Your task to perform on an android device: Go to eBay Image 0: 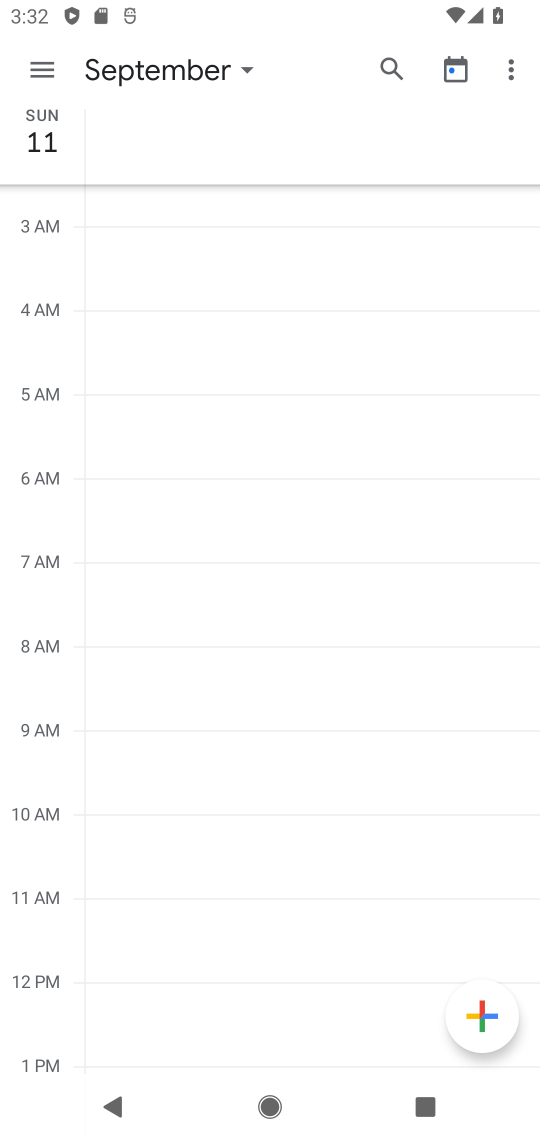
Step 0: press home button
Your task to perform on an android device: Go to eBay Image 1: 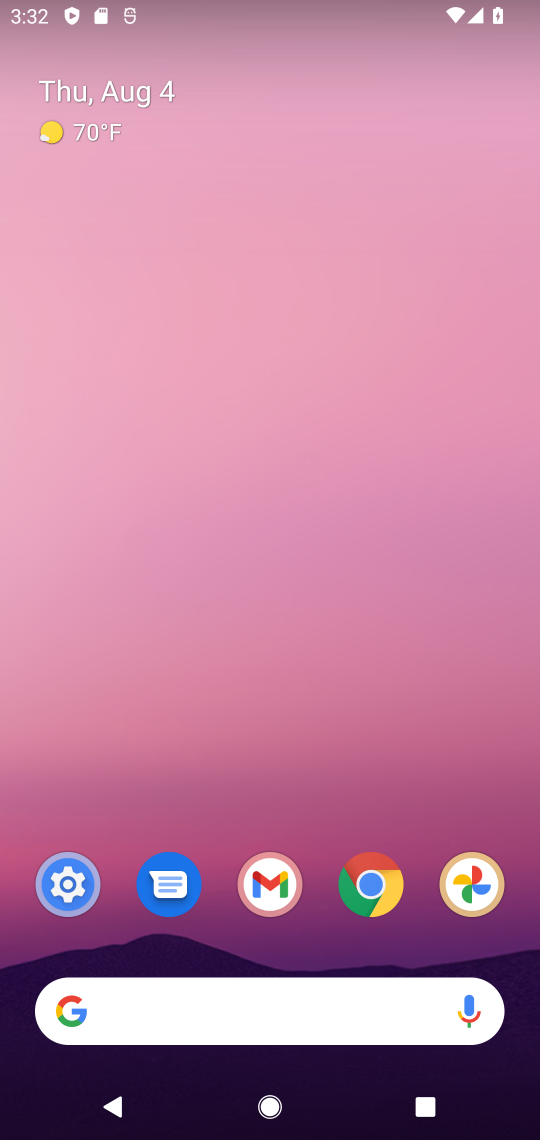
Step 1: drag from (258, 935) to (256, 54)
Your task to perform on an android device: Go to eBay Image 2: 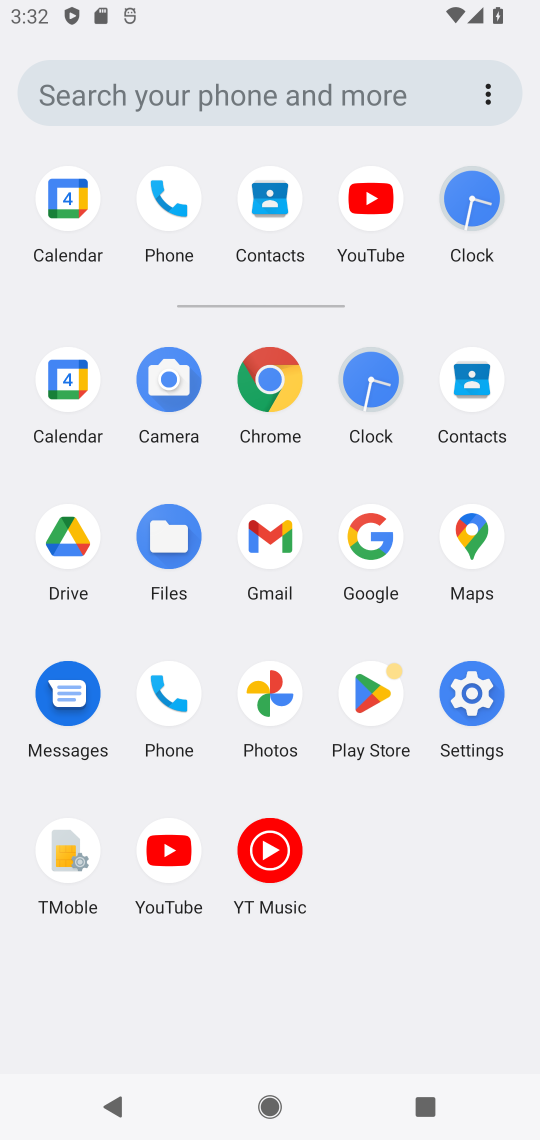
Step 2: click (253, 404)
Your task to perform on an android device: Go to eBay Image 3: 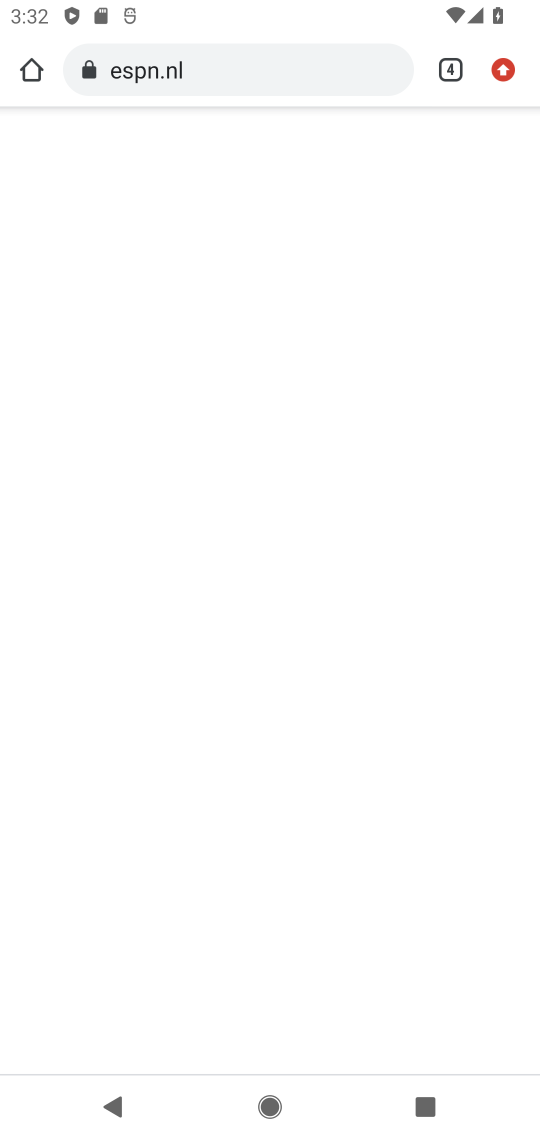
Step 3: click (506, 55)
Your task to perform on an android device: Go to eBay Image 4: 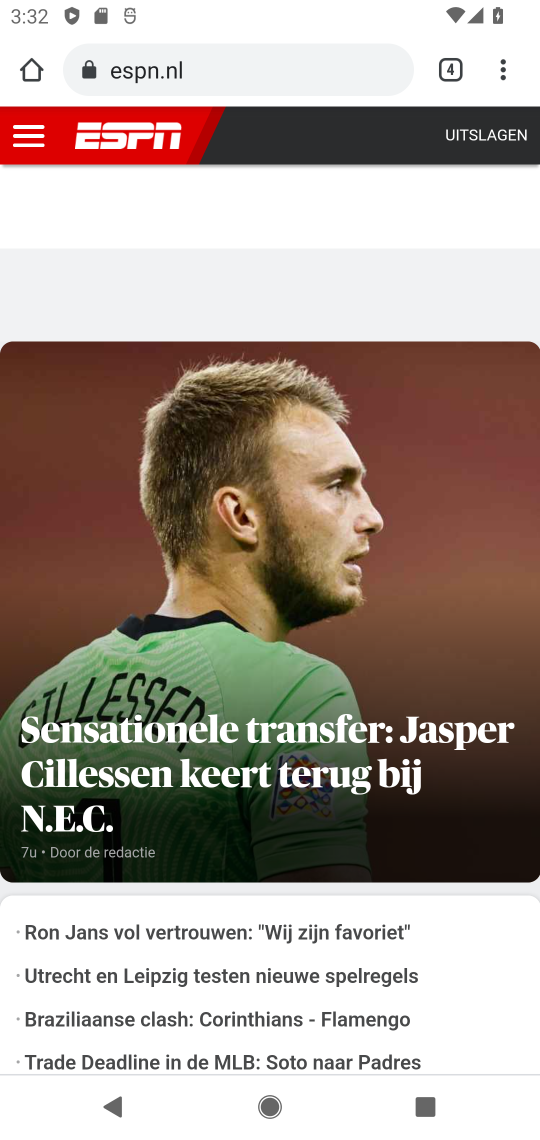
Step 4: click (492, 58)
Your task to perform on an android device: Go to eBay Image 5: 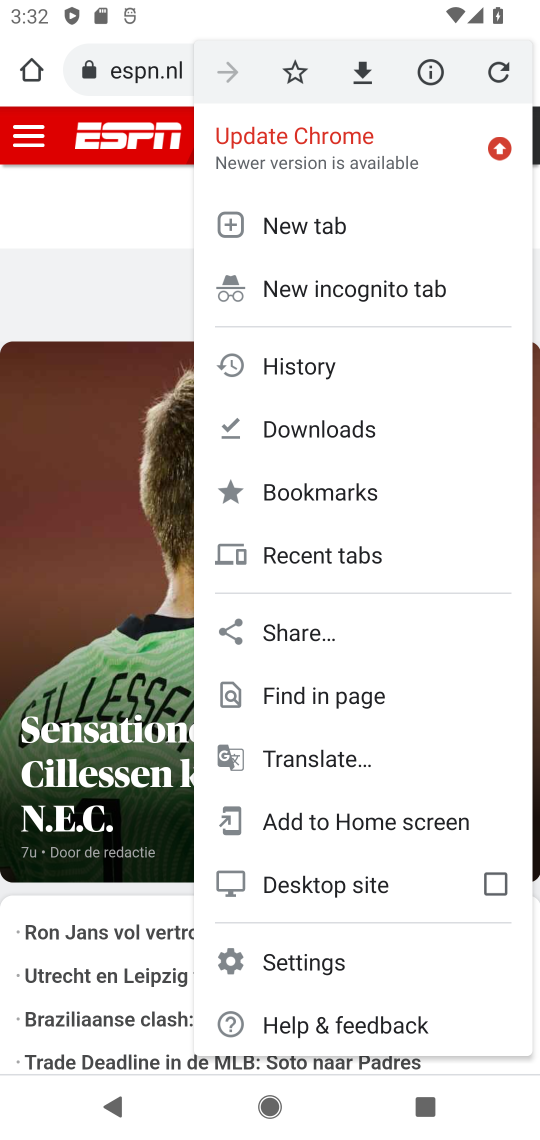
Step 5: click (297, 225)
Your task to perform on an android device: Go to eBay Image 6: 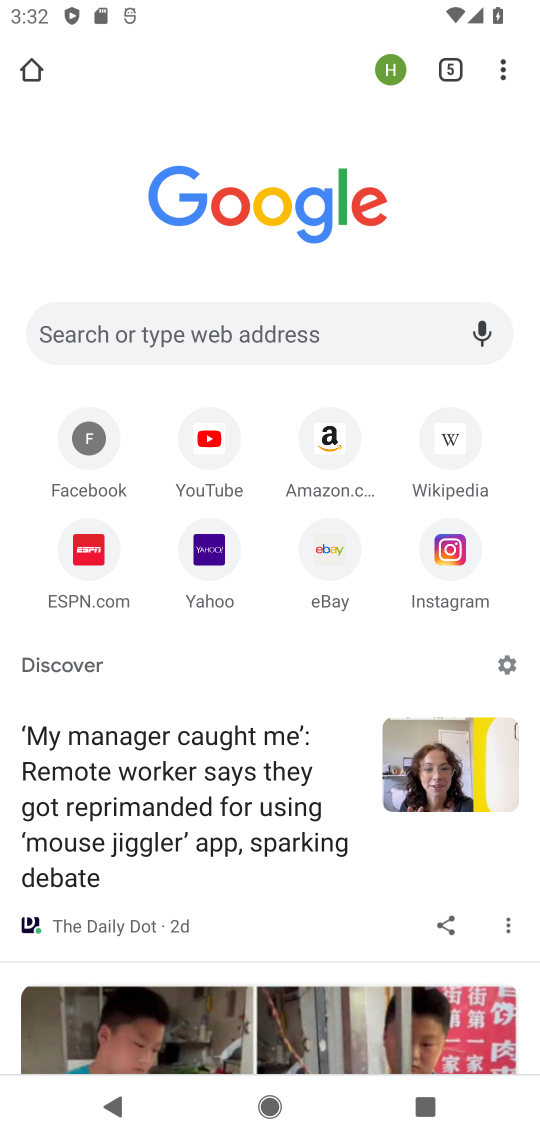
Step 6: click (323, 566)
Your task to perform on an android device: Go to eBay Image 7: 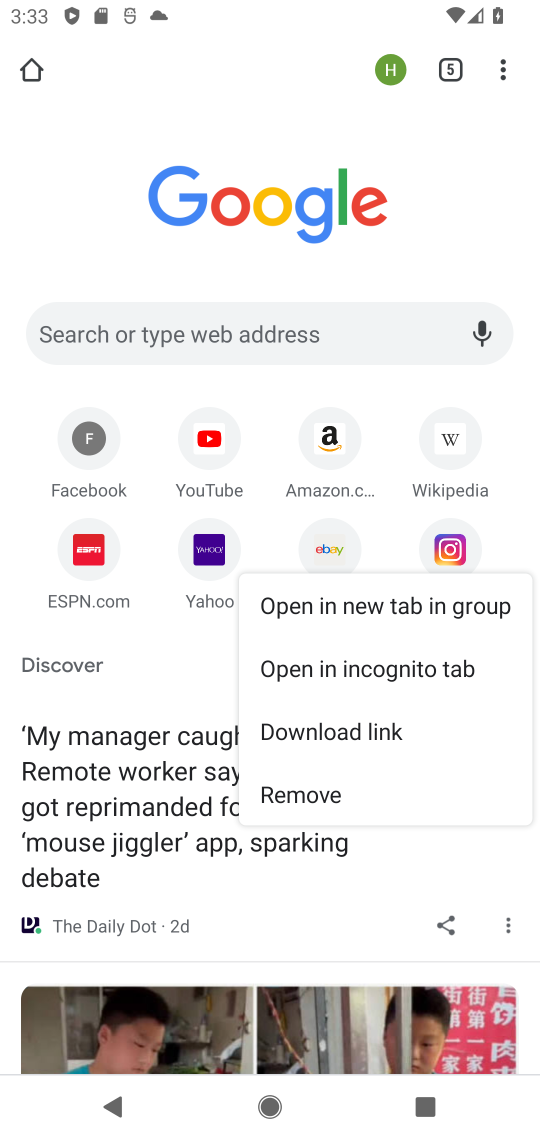
Step 7: click (343, 534)
Your task to perform on an android device: Go to eBay Image 8: 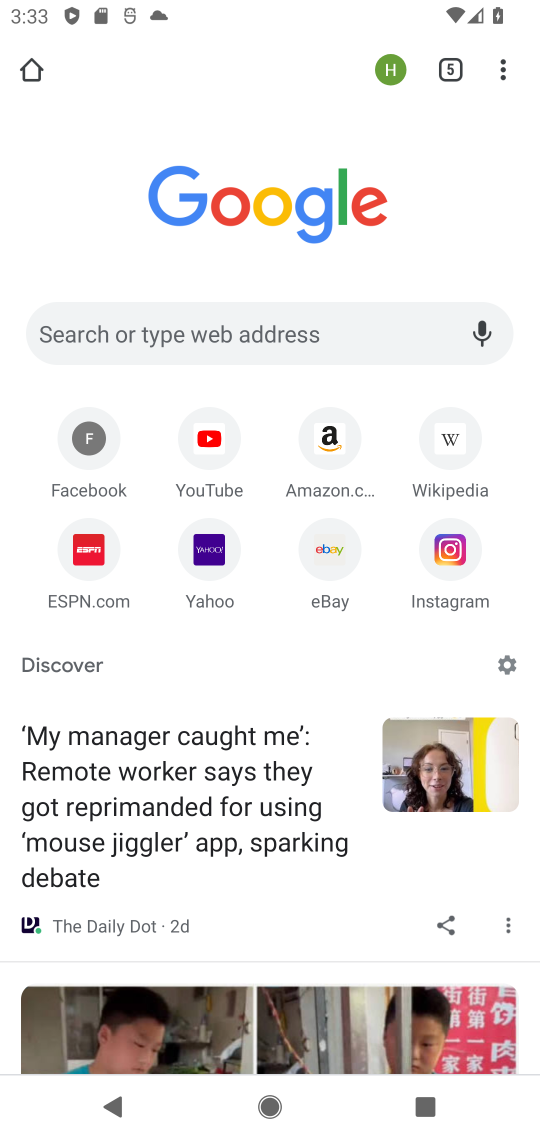
Step 8: click (329, 553)
Your task to perform on an android device: Go to eBay Image 9: 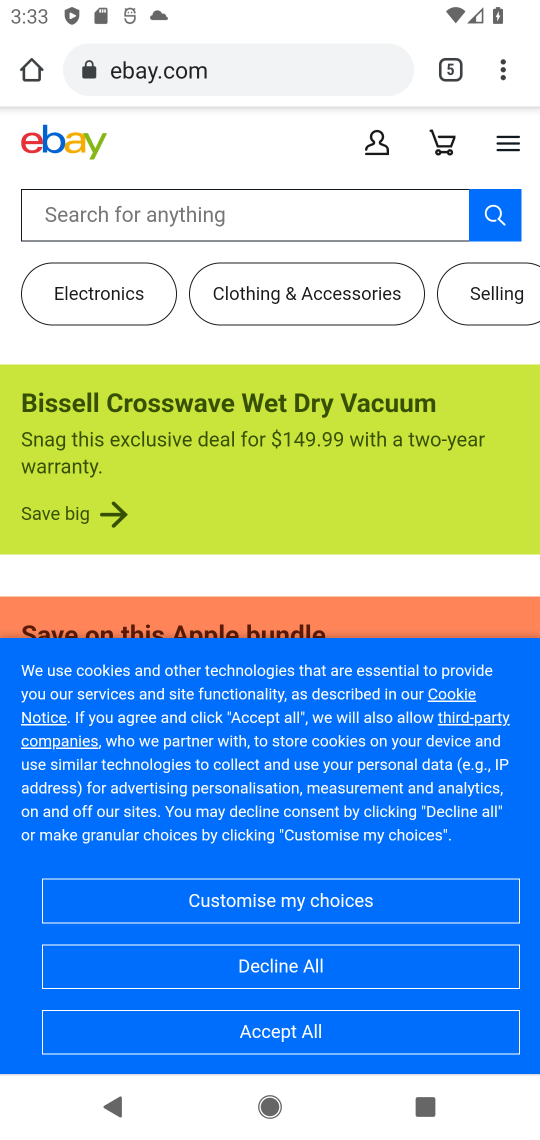
Step 9: task complete